Your task to perform on an android device: turn off notifications settings in the gmail app Image 0: 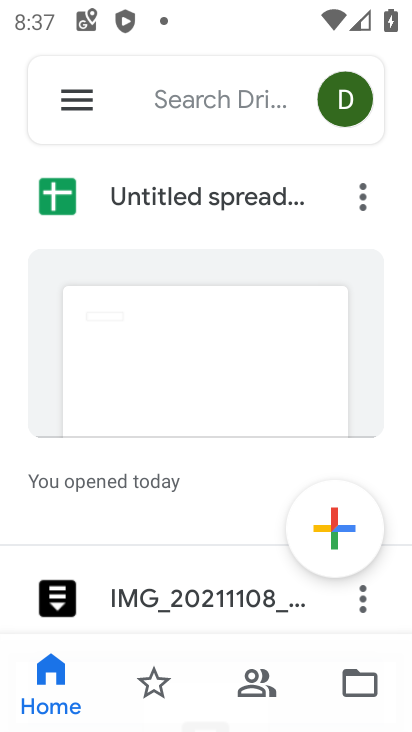
Step 0: press home button
Your task to perform on an android device: turn off notifications settings in the gmail app Image 1: 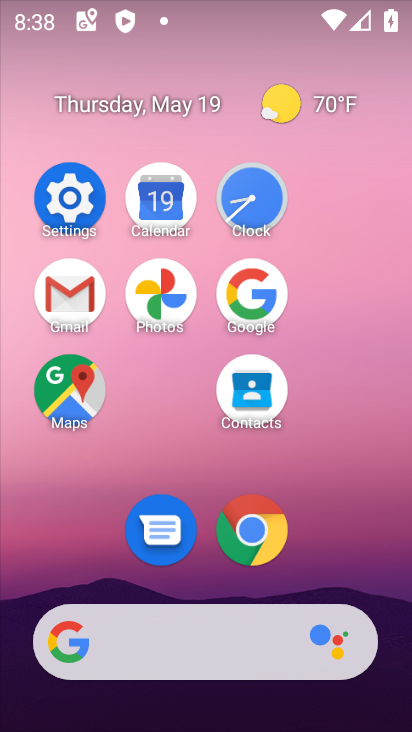
Step 1: click (78, 299)
Your task to perform on an android device: turn off notifications settings in the gmail app Image 2: 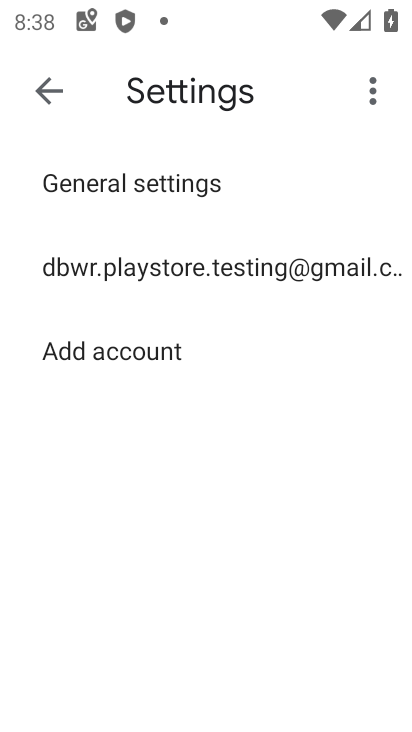
Step 2: click (75, 259)
Your task to perform on an android device: turn off notifications settings in the gmail app Image 3: 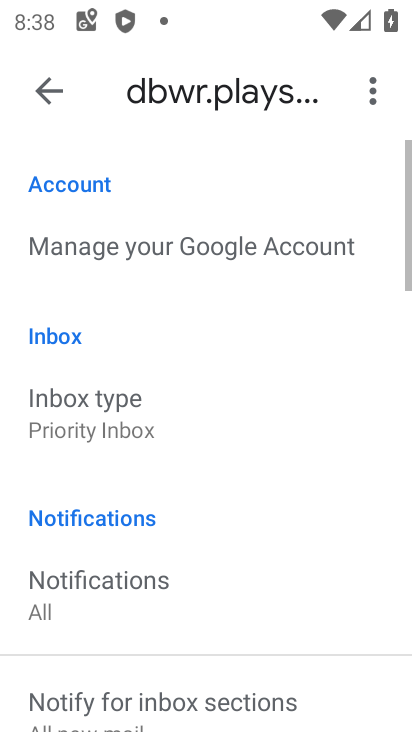
Step 3: click (204, 594)
Your task to perform on an android device: turn off notifications settings in the gmail app Image 4: 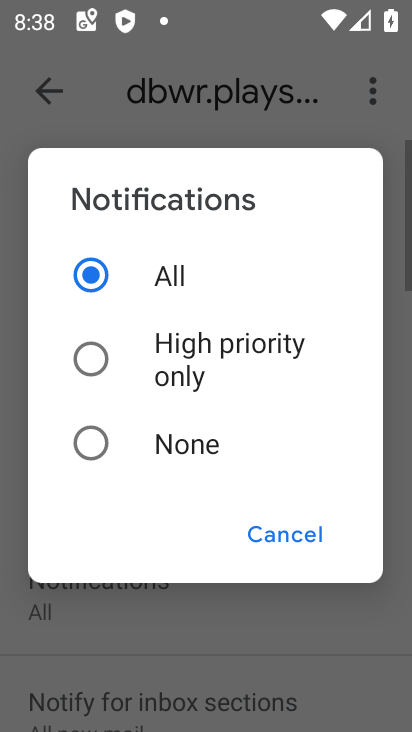
Step 4: click (220, 450)
Your task to perform on an android device: turn off notifications settings in the gmail app Image 5: 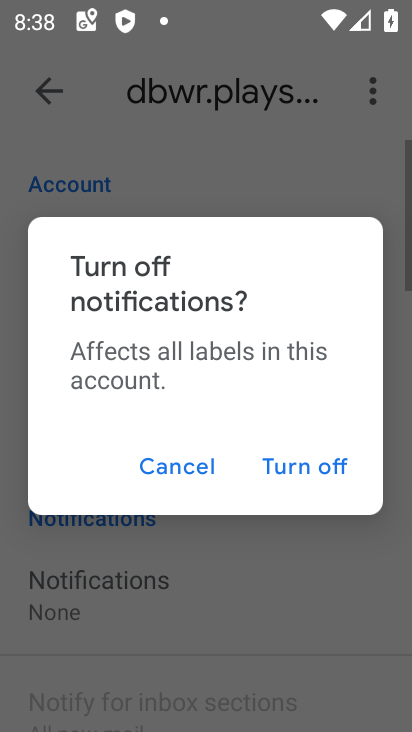
Step 5: task complete